Your task to perform on an android device: Go to accessibility settings Image 0: 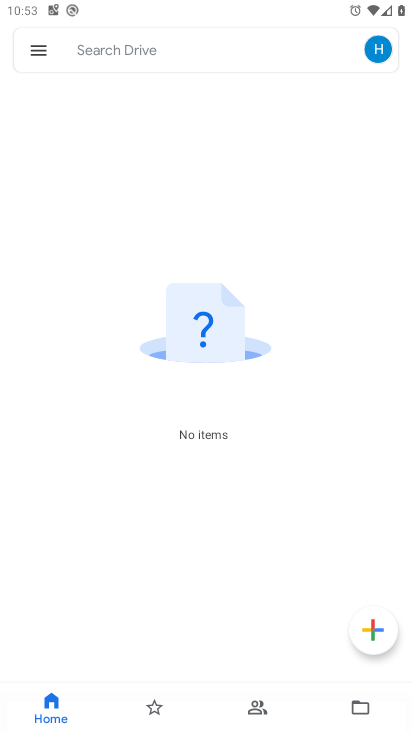
Step 0: press home button
Your task to perform on an android device: Go to accessibility settings Image 1: 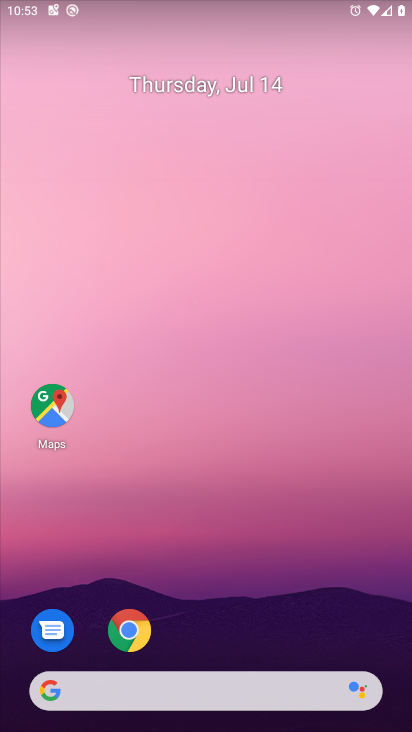
Step 1: drag from (14, 697) to (116, 220)
Your task to perform on an android device: Go to accessibility settings Image 2: 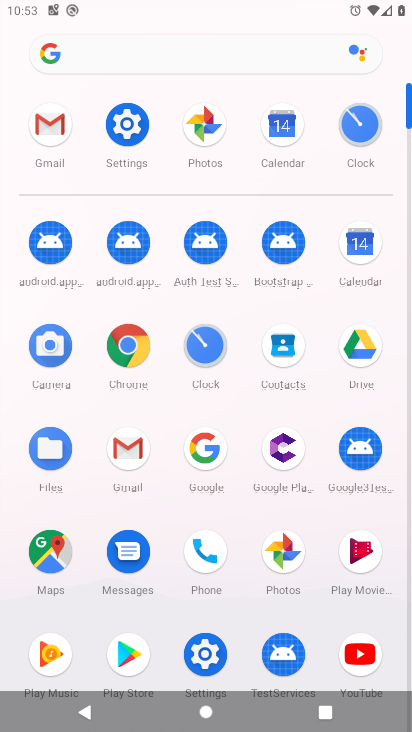
Step 2: click (212, 646)
Your task to perform on an android device: Go to accessibility settings Image 3: 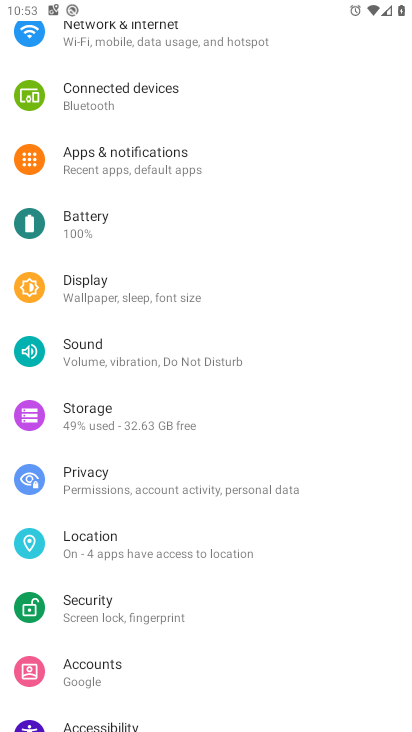
Step 3: drag from (279, 689) to (286, 408)
Your task to perform on an android device: Go to accessibility settings Image 4: 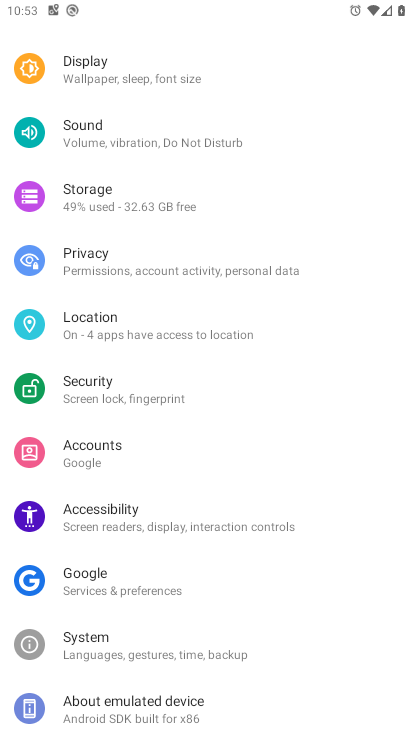
Step 4: click (153, 517)
Your task to perform on an android device: Go to accessibility settings Image 5: 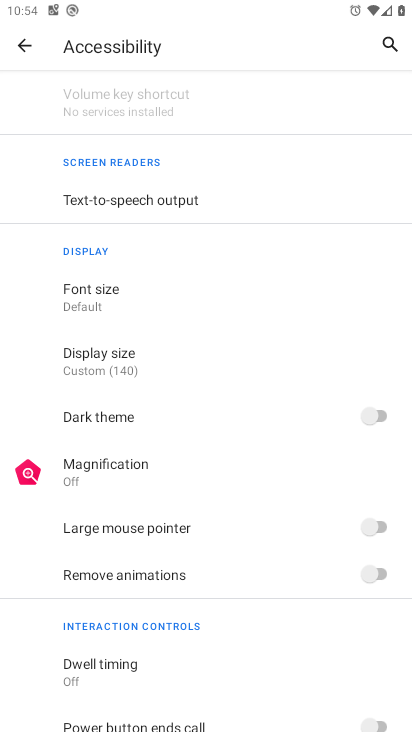
Step 5: task complete